Your task to perform on an android device: Open Google Maps and go to "Timeline" Image 0: 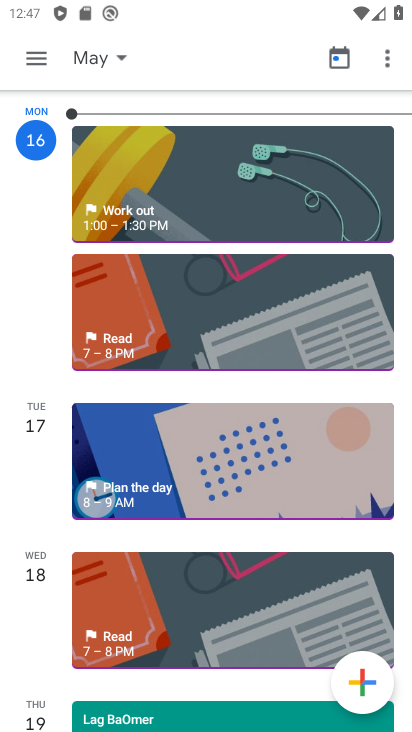
Step 0: press home button
Your task to perform on an android device: Open Google Maps and go to "Timeline" Image 1: 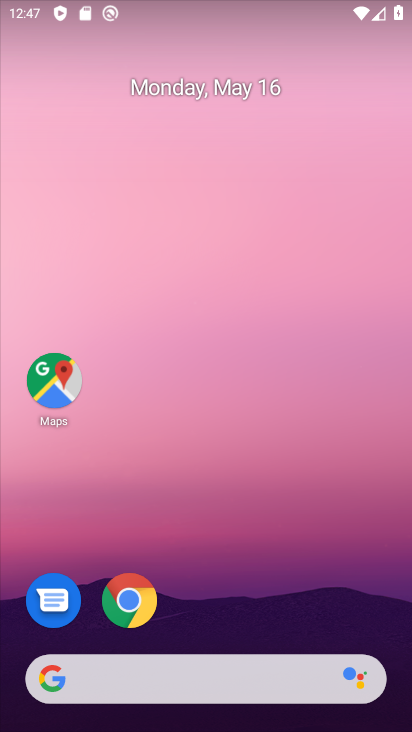
Step 1: drag from (358, 601) to (318, 193)
Your task to perform on an android device: Open Google Maps and go to "Timeline" Image 2: 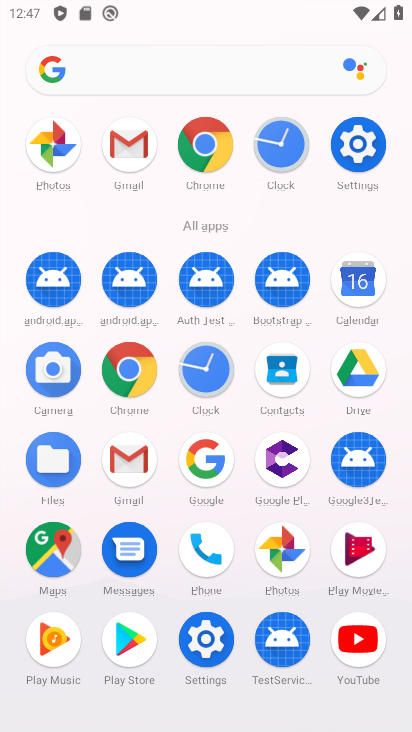
Step 2: click (64, 544)
Your task to perform on an android device: Open Google Maps and go to "Timeline" Image 3: 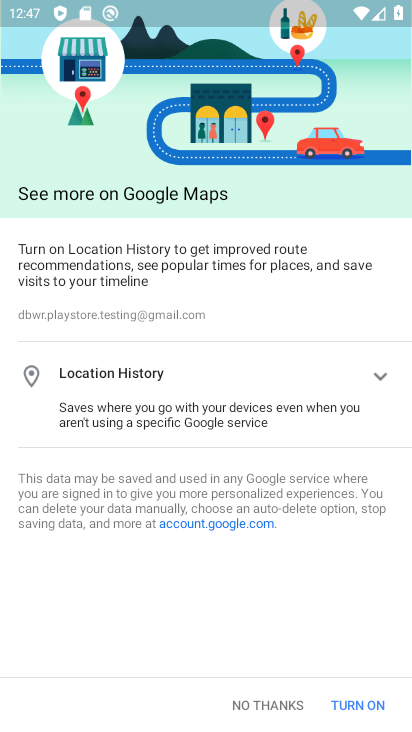
Step 3: click (274, 698)
Your task to perform on an android device: Open Google Maps and go to "Timeline" Image 4: 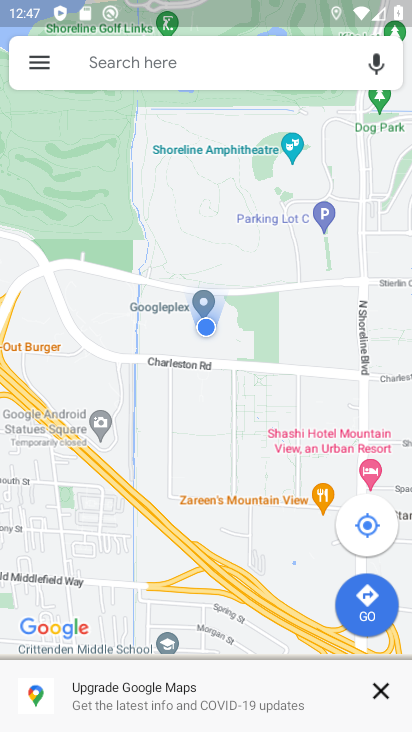
Step 4: click (37, 69)
Your task to perform on an android device: Open Google Maps and go to "Timeline" Image 5: 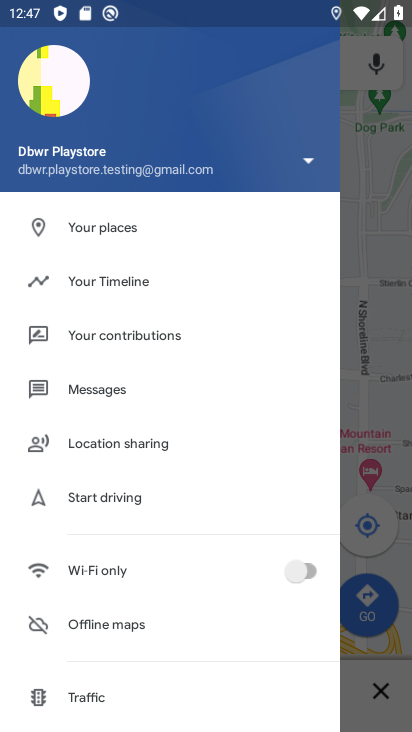
Step 5: click (140, 281)
Your task to perform on an android device: Open Google Maps and go to "Timeline" Image 6: 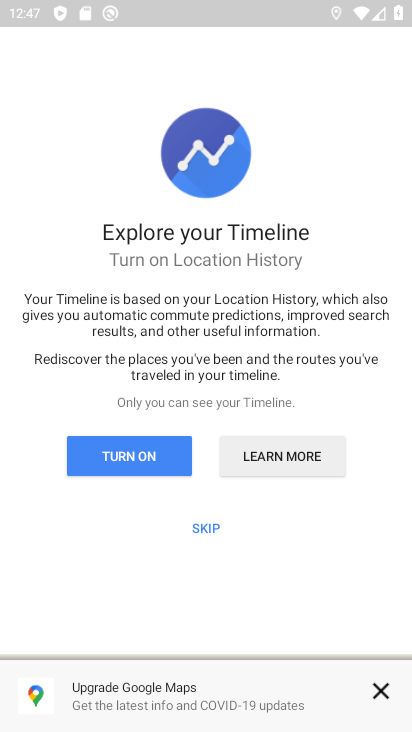
Step 6: task complete